Your task to perform on an android device: create a new album in the google photos Image 0: 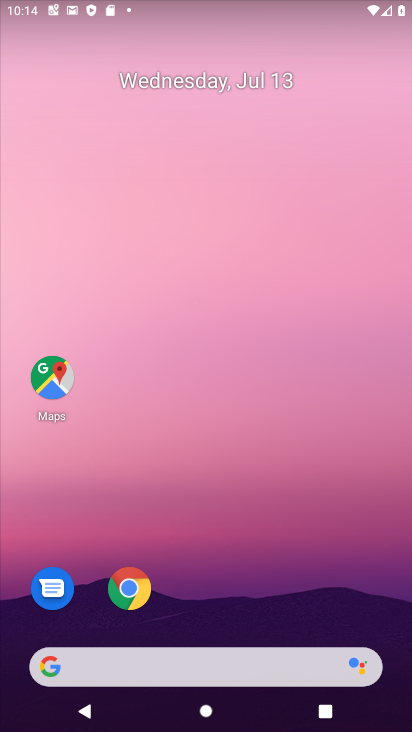
Step 0: drag from (220, 633) to (208, 46)
Your task to perform on an android device: create a new album in the google photos Image 1: 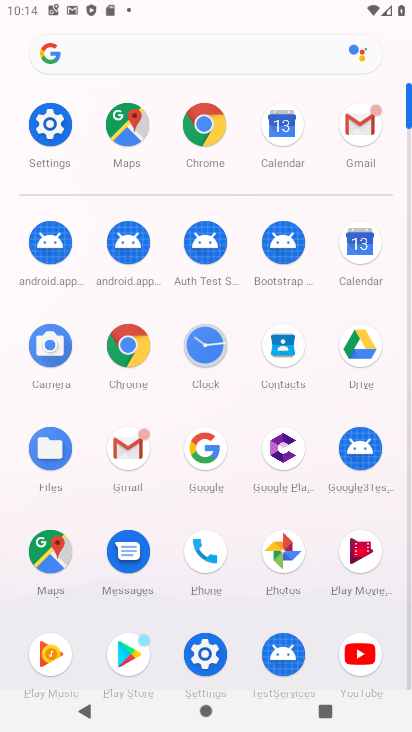
Step 1: click (276, 551)
Your task to perform on an android device: create a new album in the google photos Image 2: 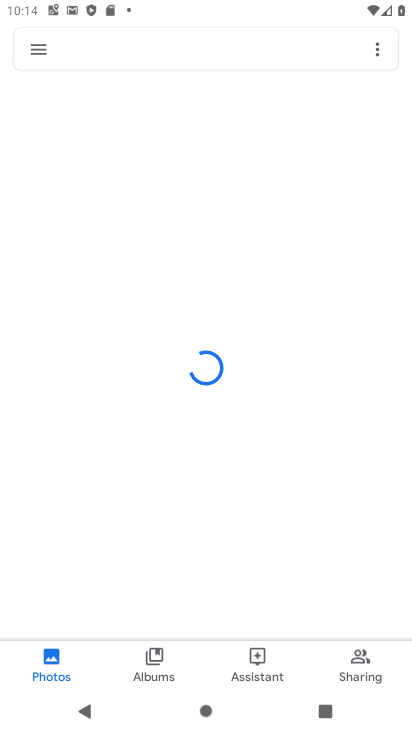
Step 2: click (152, 657)
Your task to perform on an android device: create a new album in the google photos Image 3: 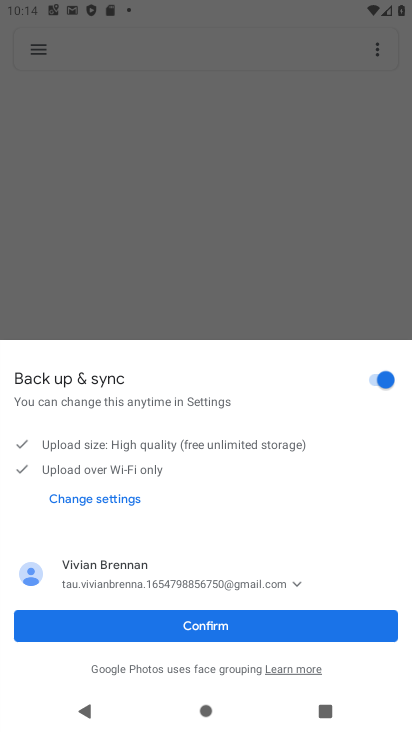
Step 3: click (212, 624)
Your task to perform on an android device: create a new album in the google photos Image 4: 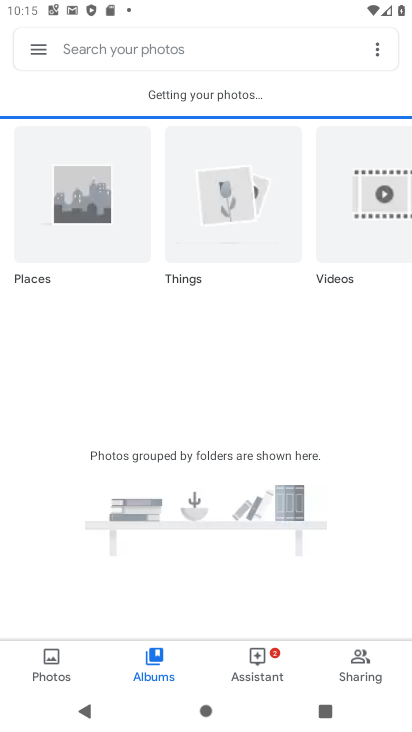
Step 4: click (366, 47)
Your task to perform on an android device: create a new album in the google photos Image 5: 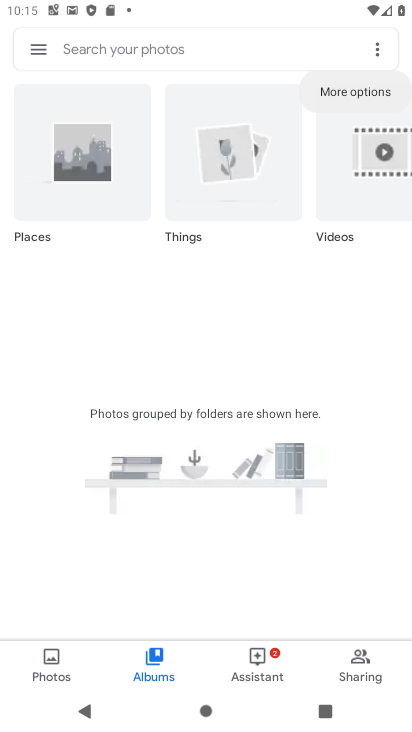
Step 5: click (14, 52)
Your task to perform on an android device: create a new album in the google photos Image 6: 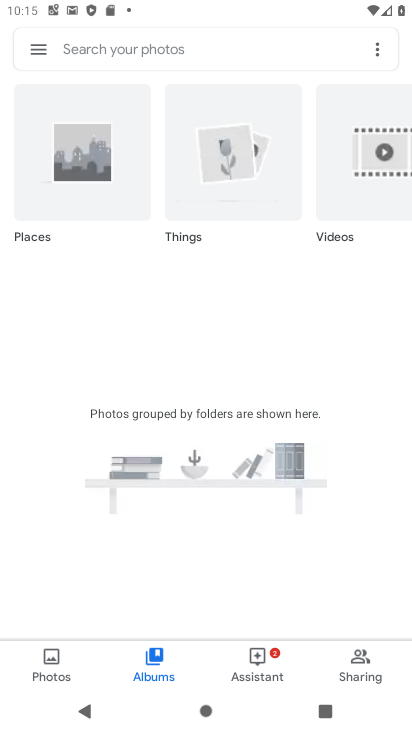
Step 6: click (35, 45)
Your task to perform on an android device: create a new album in the google photos Image 7: 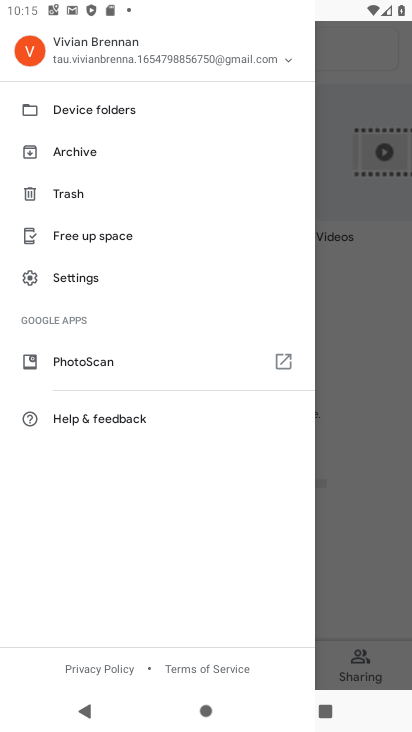
Step 7: click (360, 389)
Your task to perform on an android device: create a new album in the google photos Image 8: 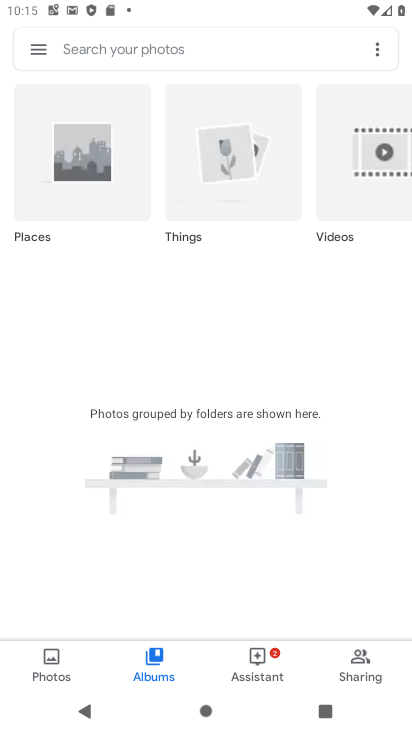
Step 8: task complete